Your task to perform on an android device: See recent photos Image 0: 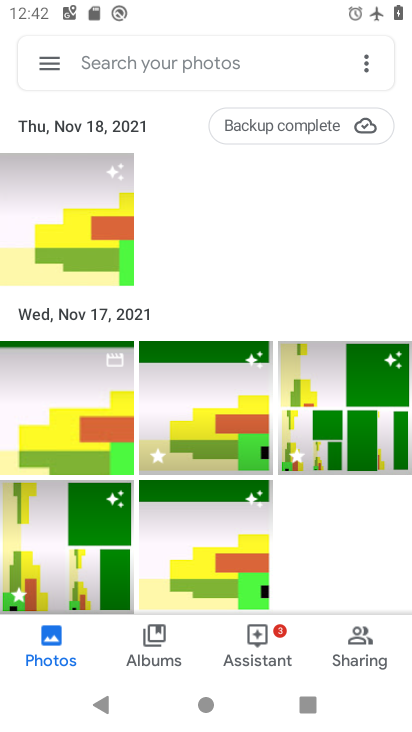
Step 0: press home button
Your task to perform on an android device: See recent photos Image 1: 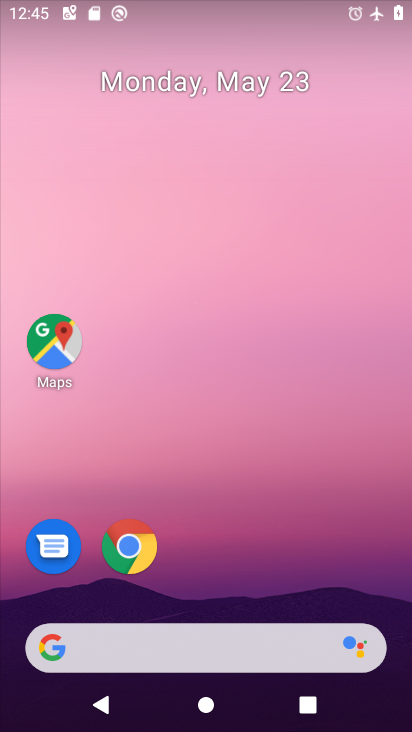
Step 1: drag from (264, 653) to (231, 71)
Your task to perform on an android device: See recent photos Image 2: 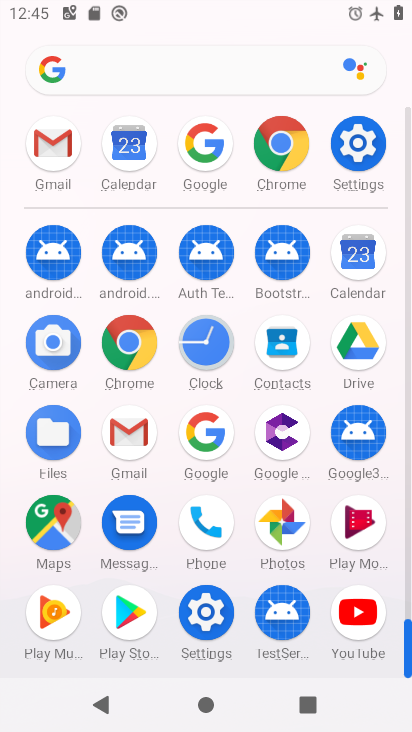
Step 2: click (283, 540)
Your task to perform on an android device: See recent photos Image 3: 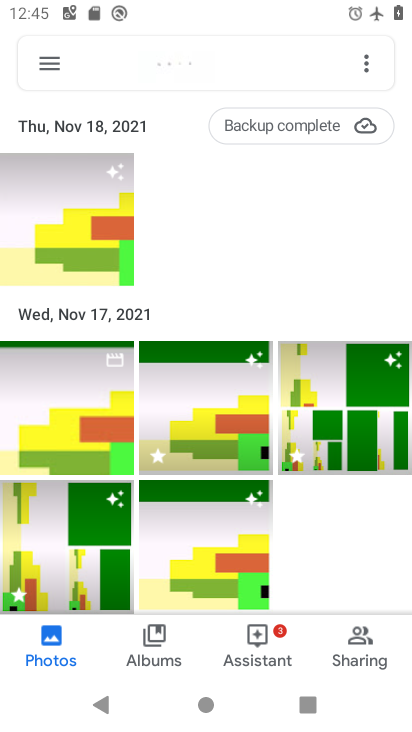
Step 3: task complete